Your task to perform on an android device: Go to Google maps Image 0: 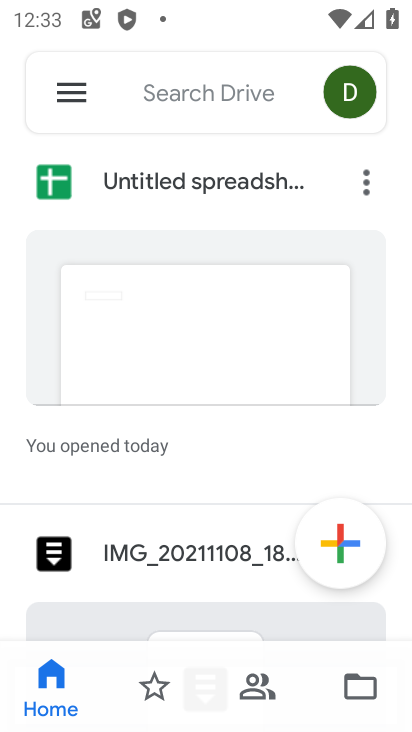
Step 0: press home button
Your task to perform on an android device: Go to Google maps Image 1: 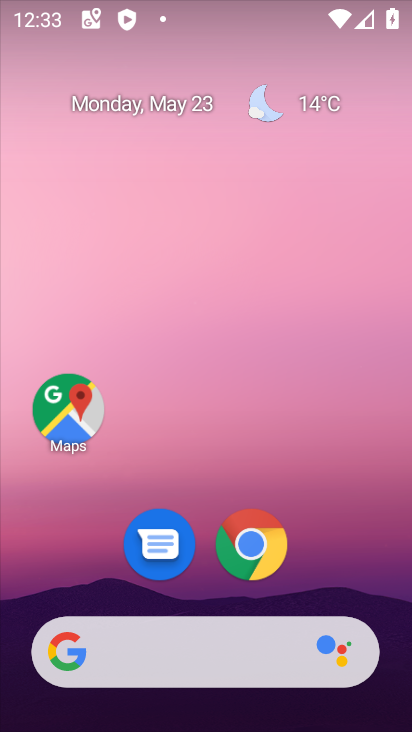
Step 1: click (67, 412)
Your task to perform on an android device: Go to Google maps Image 2: 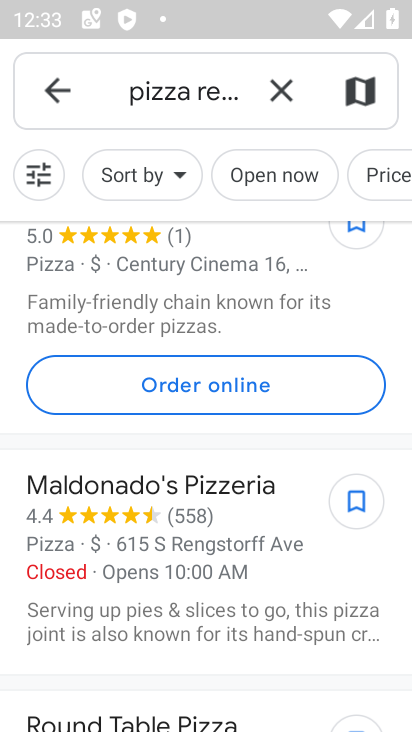
Step 2: task complete